Your task to perform on an android device: see sites visited before in the chrome app Image 0: 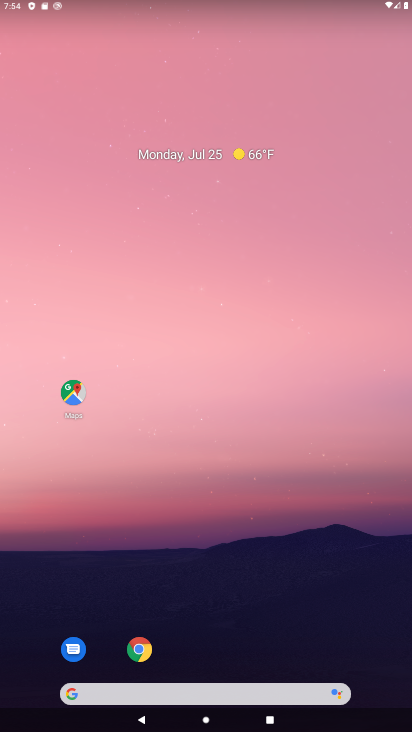
Step 0: drag from (230, 638) to (230, 321)
Your task to perform on an android device: see sites visited before in the chrome app Image 1: 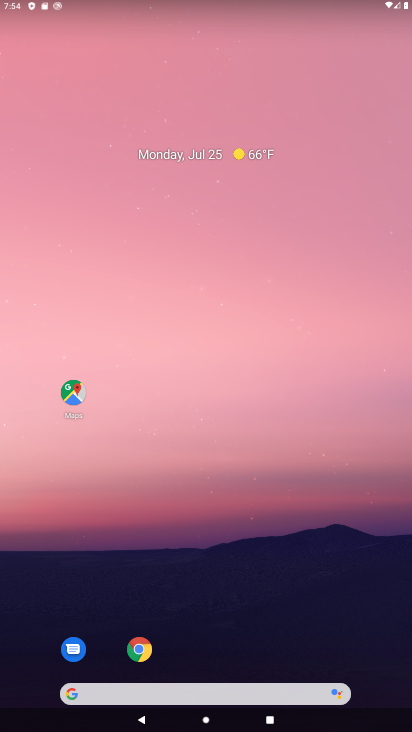
Step 1: drag from (217, 664) to (175, 55)
Your task to perform on an android device: see sites visited before in the chrome app Image 2: 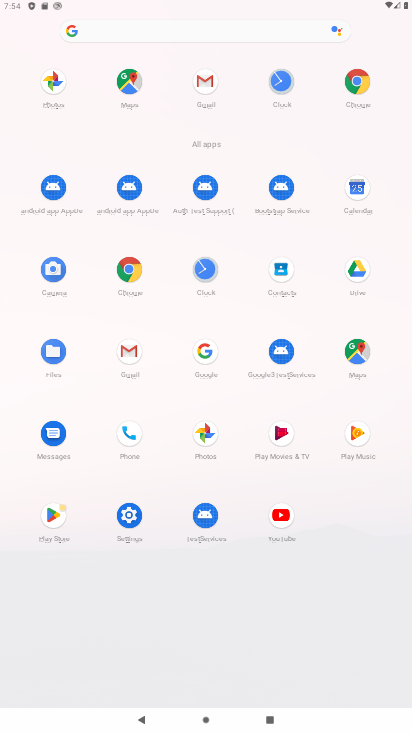
Step 2: click (129, 267)
Your task to perform on an android device: see sites visited before in the chrome app Image 3: 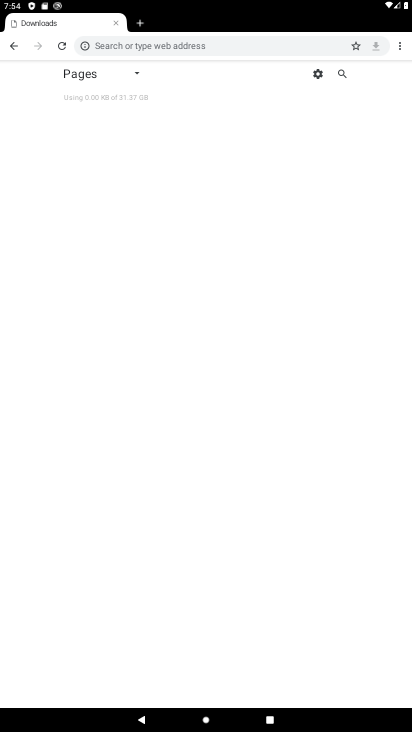
Step 3: click (400, 46)
Your task to perform on an android device: see sites visited before in the chrome app Image 4: 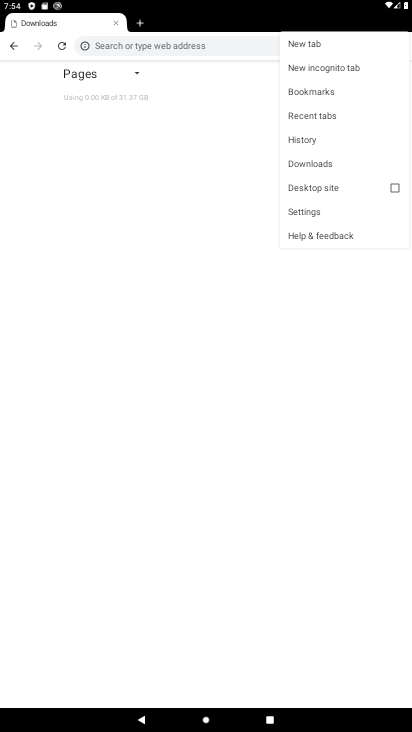
Step 4: click (330, 144)
Your task to perform on an android device: see sites visited before in the chrome app Image 5: 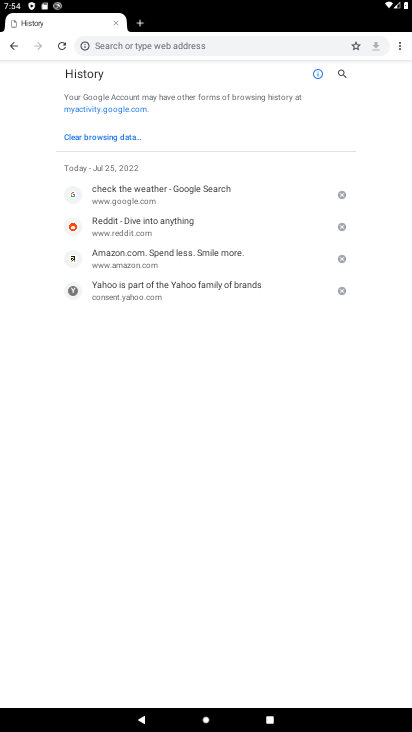
Step 5: task complete